Your task to perform on an android device: Open network settings Image 0: 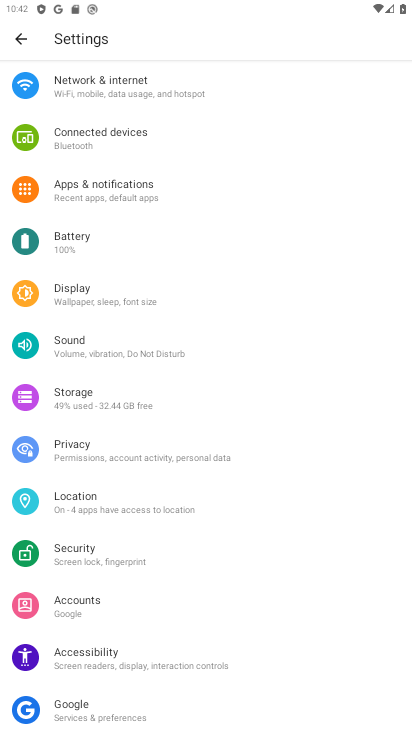
Step 0: click (288, 84)
Your task to perform on an android device: Open network settings Image 1: 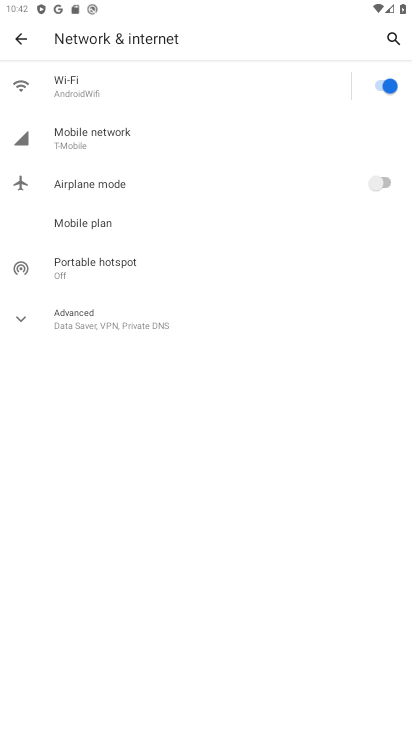
Step 1: task complete